Your task to perform on an android device: toggle data saver in the chrome app Image 0: 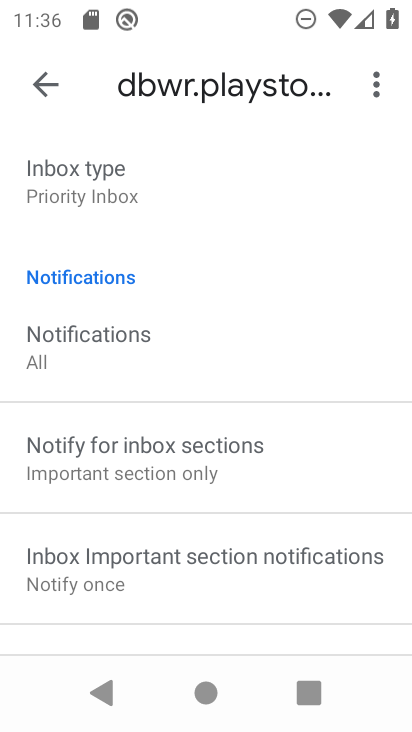
Step 0: press home button
Your task to perform on an android device: toggle data saver in the chrome app Image 1: 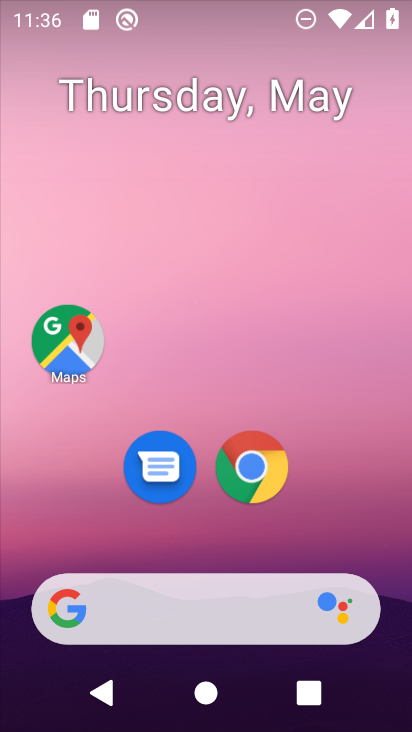
Step 1: drag from (236, 531) to (203, 67)
Your task to perform on an android device: toggle data saver in the chrome app Image 2: 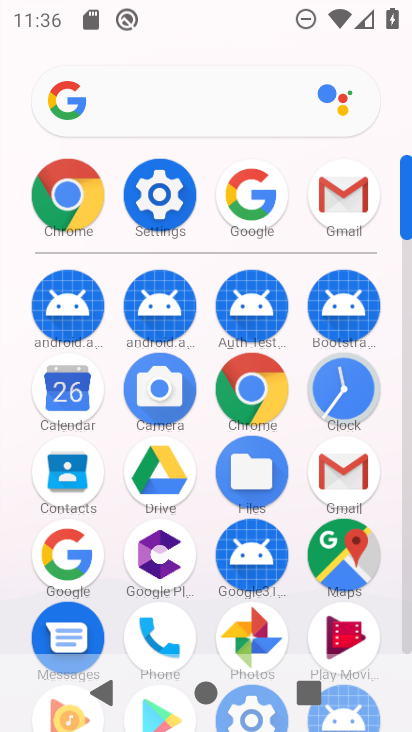
Step 2: click (247, 416)
Your task to perform on an android device: toggle data saver in the chrome app Image 3: 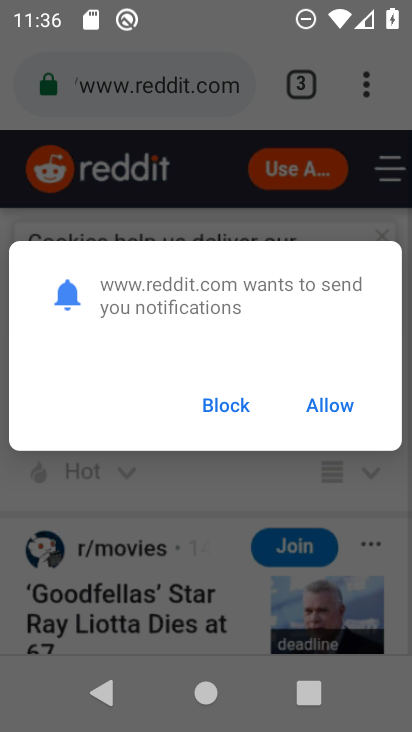
Step 3: click (336, 417)
Your task to perform on an android device: toggle data saver in the chrome app Image 4: 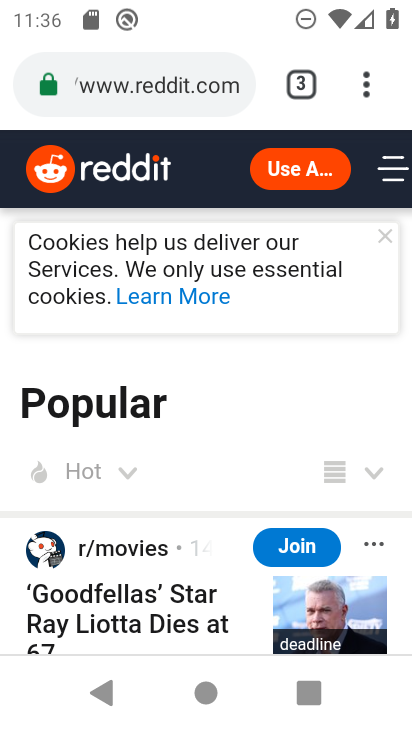
Step 4: click (361, 88)
Your task to perform on an android device: toggle data saver in the chrome app Image 5: 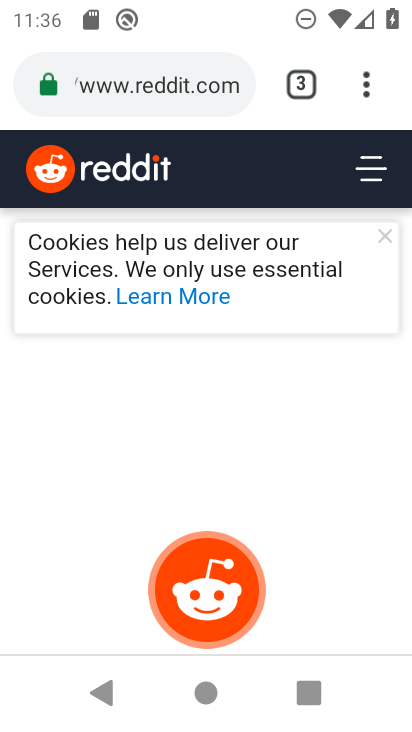
Step 5: click (363, 95)
Your task to perform on an android device: toggle data saver in the chrome app Image 6: 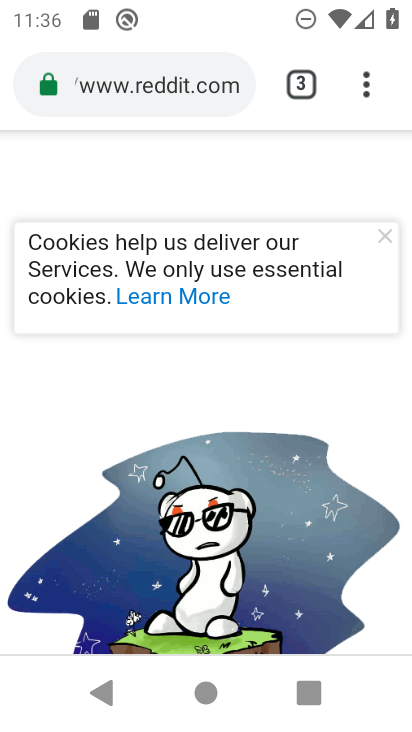
Step 6: click (363, 83)
Your task to perform on an android device: toggle data saver in the chrome app Image 7: 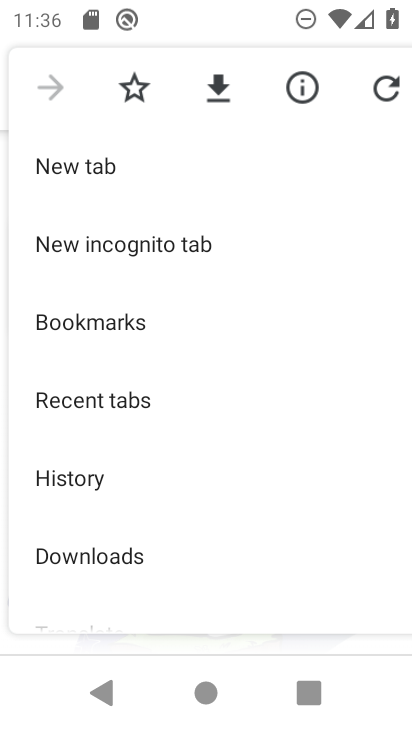
Step 7: drag from (201, 454) to (243, 62)
Your task to perform on an android device: toggle data saver in the chrome app Image 8: 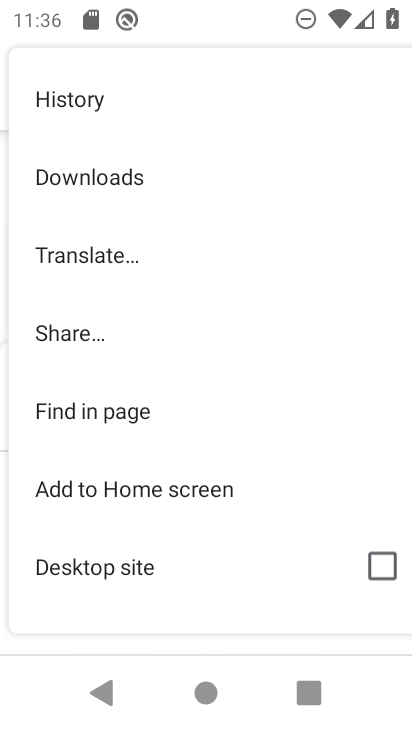
Step 8: drag from (131, 534) to (212, 113)
Your task to perform on an android device: toggle data saver in the chrome app Image 9: 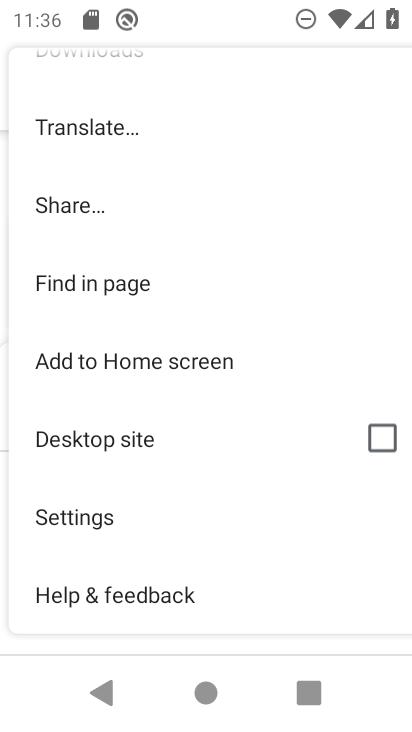
Step 9: click (135, 513)
Your task to perform on an android device: toggle data saver in the chrome app Image 10: 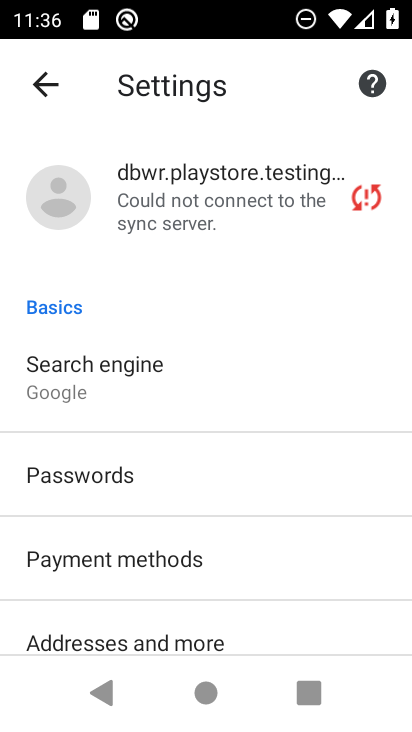
Step 10: drag from (189, 574) to (225, 121)
Your task to perform on an android device: toggle data saver in the chrome app Image 11: 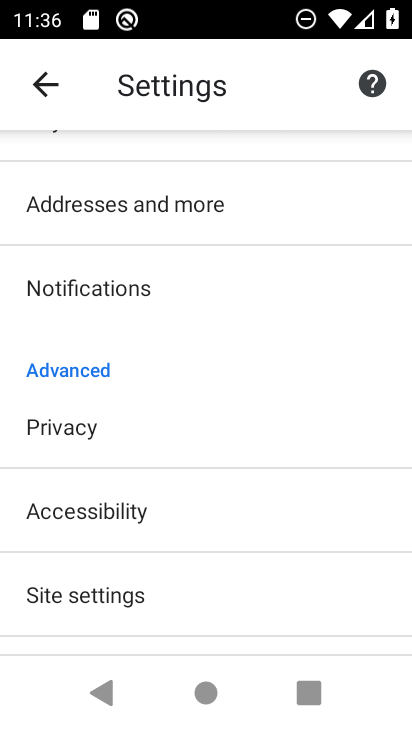
Step 11: drag from (204, 550) to (208, 263)
Your task to perform on an android device: toggle data saver in the chrome app Image 12: 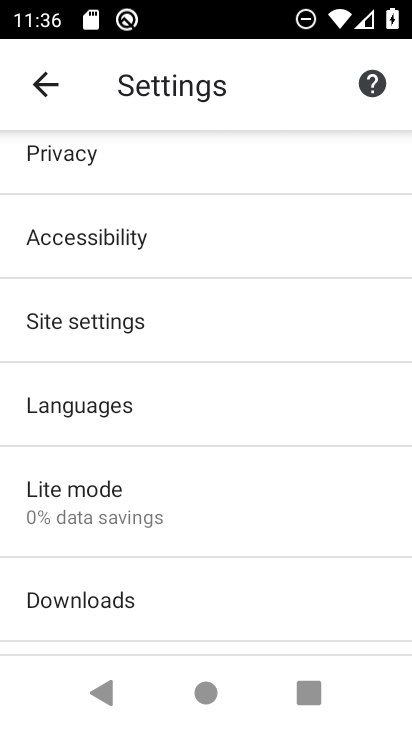
Step 12: click (192, 516)
Your task to perform on an android device: toggle data saver in the chrome app Image 13: 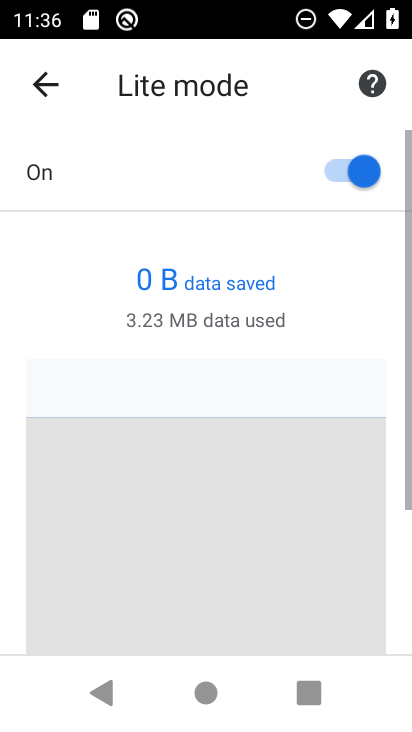
Step 13: click (345, 170)
Your task to perform on an android device: toggle data saver in the chrome app Image 14: 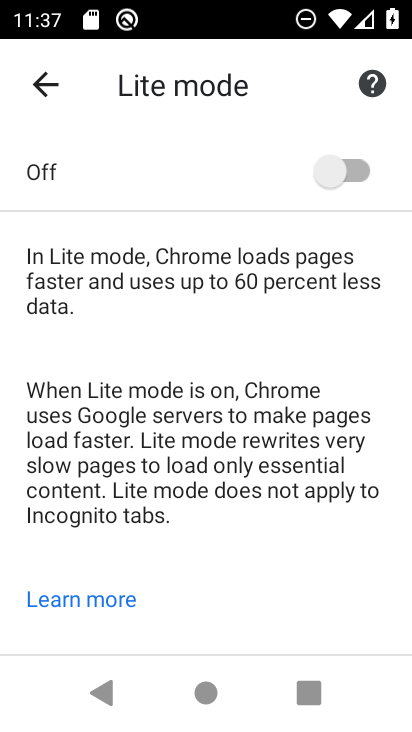
Step 14: task complete